Your task to perform on an android device: Show me recent news Image 0: 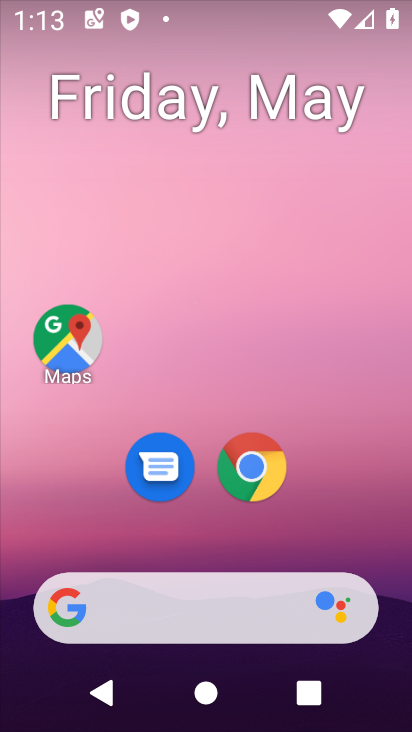
Step 0: click (241, 464)
Your task to perform on an android device: Show me recent news Image 1: 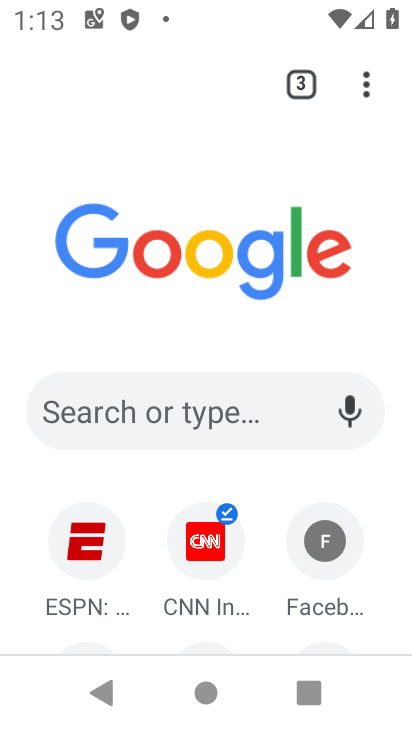
Step 1: click (219, 400)
Your task to perform on an android device: Show me recent news Image 2: 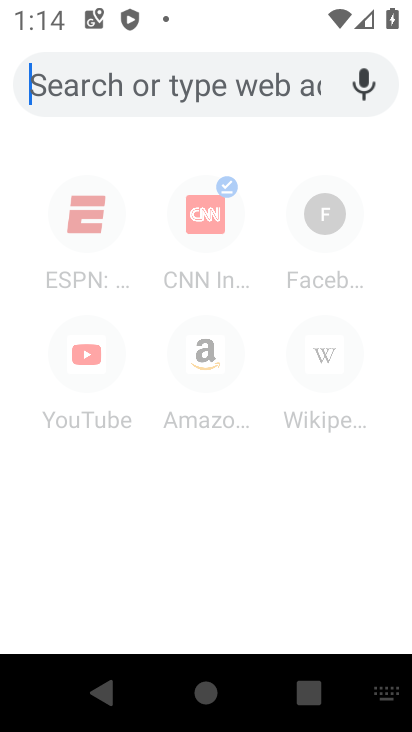
Step 2: type "Show me recent news"
Your task to perform on an android device: Show me recent news Image 3: 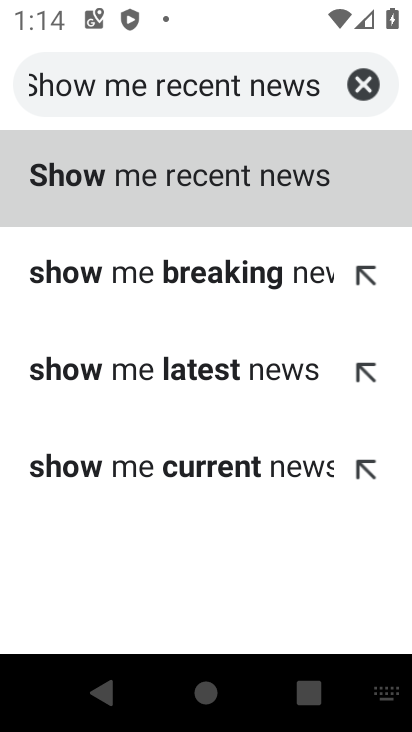
Step 3: click (178, 154)
Your task to perform on an android device: Show me recent news Image 4: 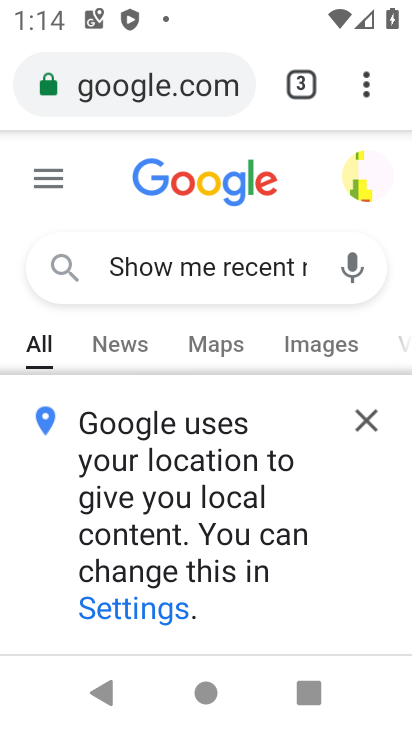
Step 4: click (373, 416)
Your task to perform on an android device: Show me recent news Image 5: 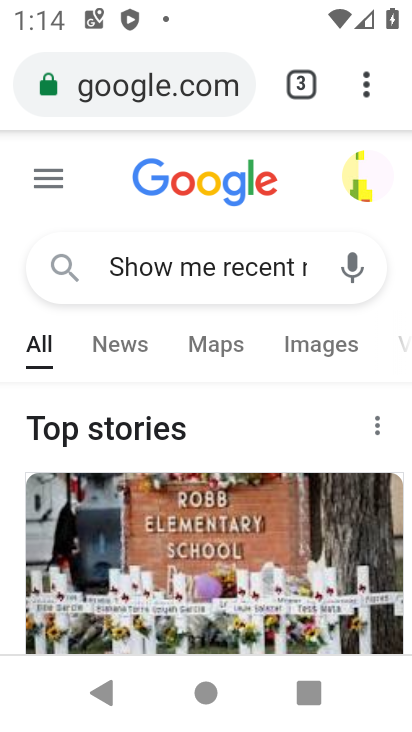
Step 5: task complete